Your task to perform on an android device: toggle priority inbox in the gmail app Image 0: 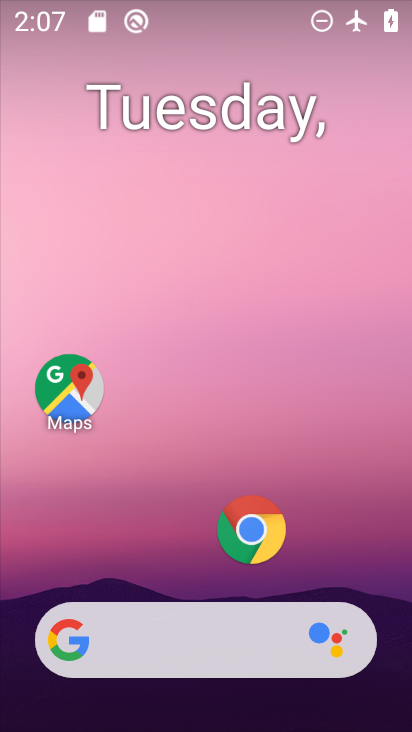
Step 0: press home button
Your task to perform on an android device: toggle priority inbox in the gmail app Image 1: 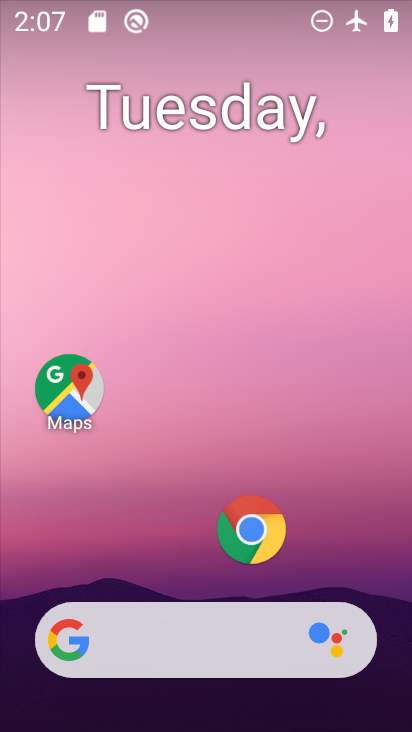
Step 1: drag from (235, 688) to (319, 179)
Your task to perform on an android device: toggle priority inbox in the gmail app Image 2: 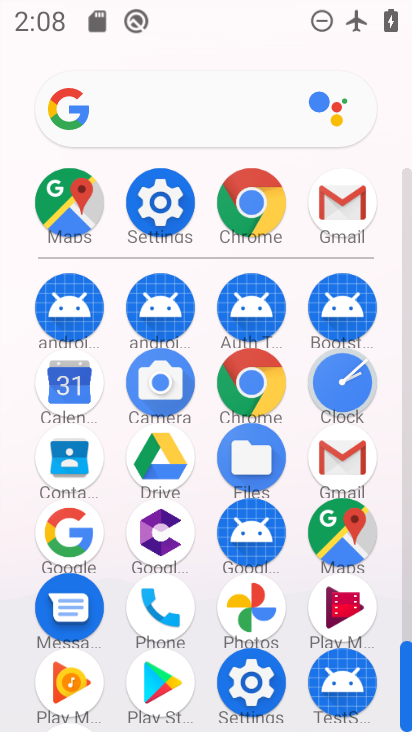
Step 2: click (351, 214)
Your task to perform on an android device: toggle priority inbox in the gmail app Image 3: 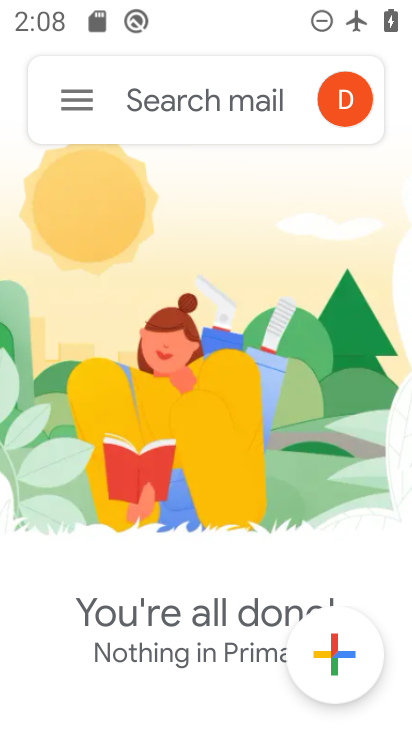
Step 3: click (80, 107)
Your task to perform on an android device: toggle priority inbox in the gmail app Image 4: 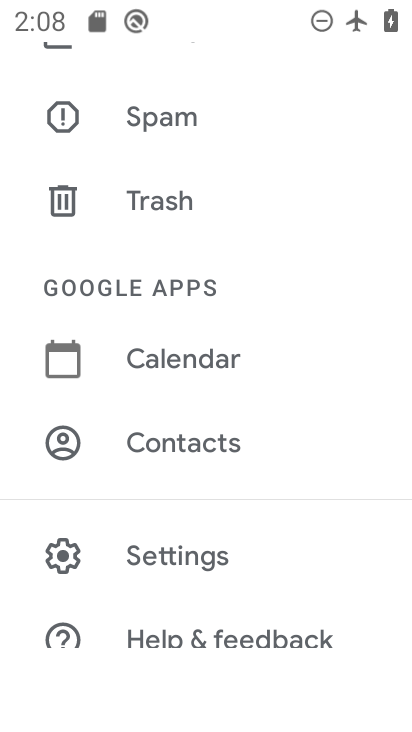
Step 4: click (161, 550)
Your task to perform on an android device: toggle priority inbox in the gmail app Image 5: 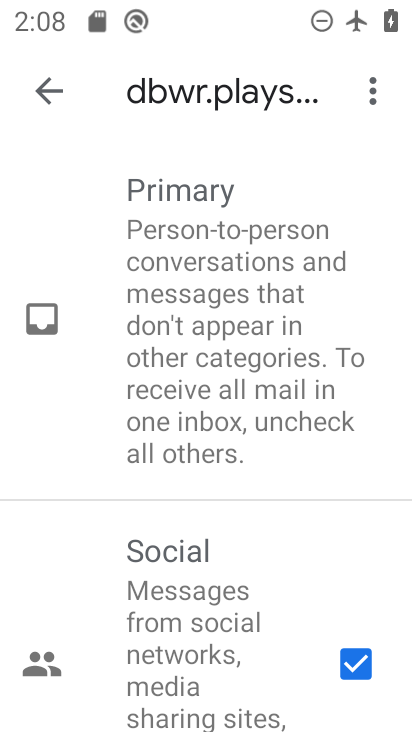
Step 5: click (52, 96)
Your task to perform on an android device: toggle priority inbox in the gmail app Image 6: 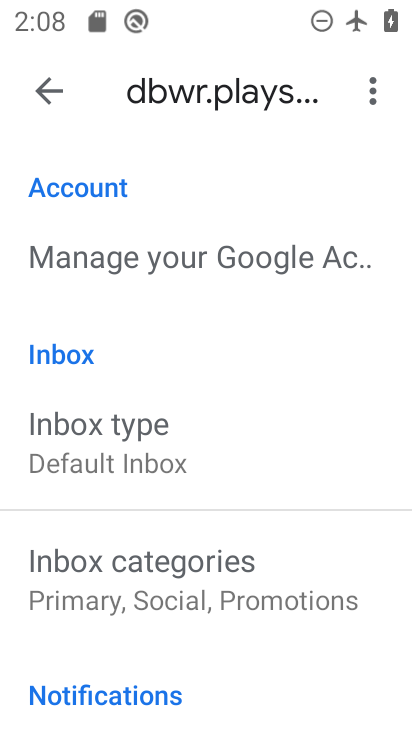
Step 6: drag from (129, 293) to (149, 443)
Your task to perform on an android device: toggle priority inbox in the gmail app Image 7: 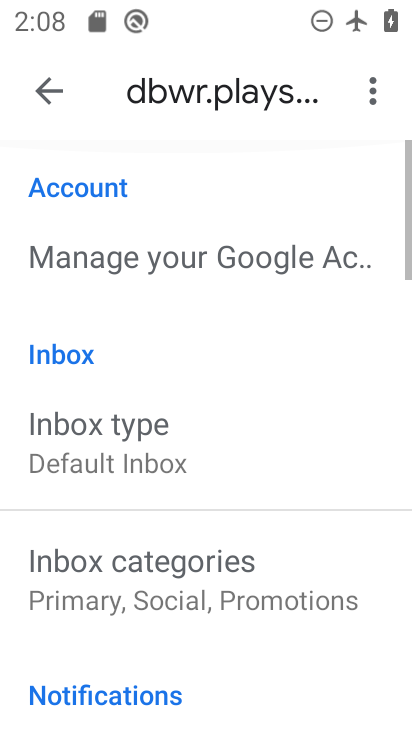
Step 7: click (125, 449)
Your task to perform on an android device: toggle priority inbox in the gmail app Image 8: 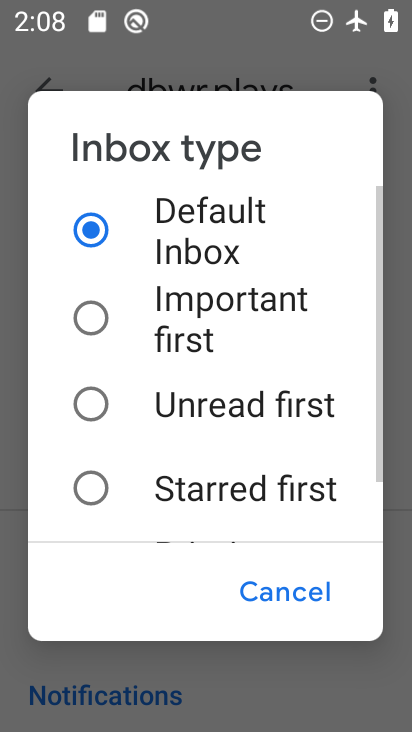
Step 8: drag from (136, 482) to (175, 217)
Your task to perform on an android device: toggle priority inbox in the gmail app Image 9: 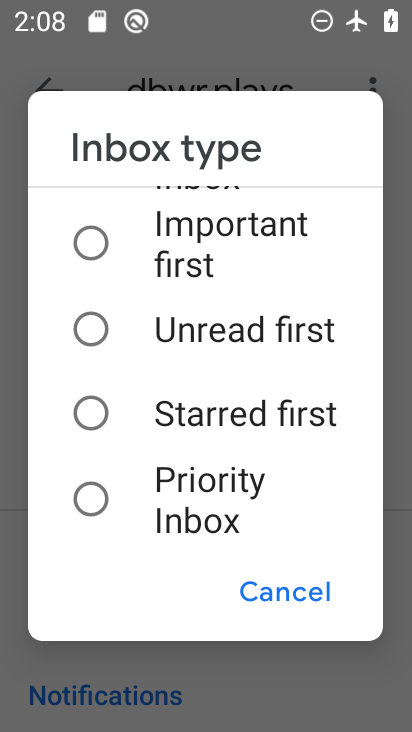
Step 9: click (164, 490)
Your task to perform on an android device: toggle priority inbox in the gmail app Image 10: 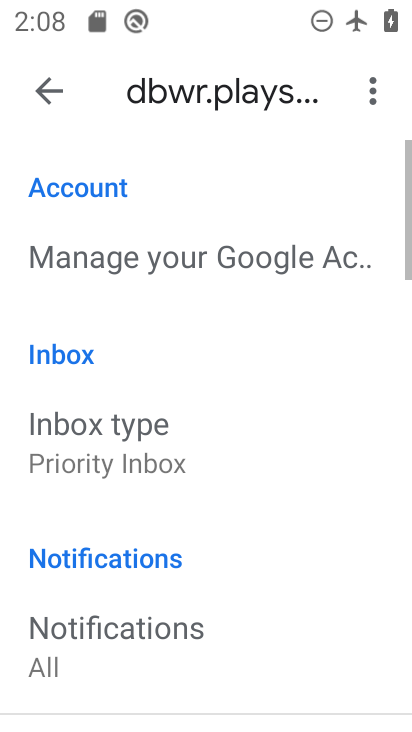
Step 10: task complete